Your task to perform on an android device: Show me popular videos on Youtube Image 0: 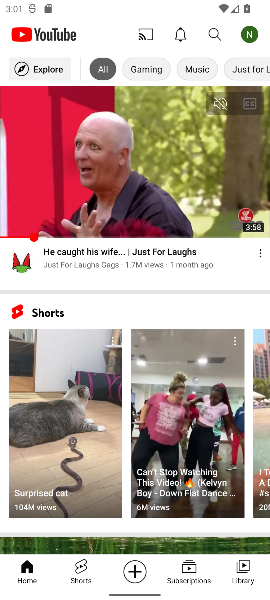
Step 0: task complete